Your task to perform on an android device: Toggle the flashlight Image 0: 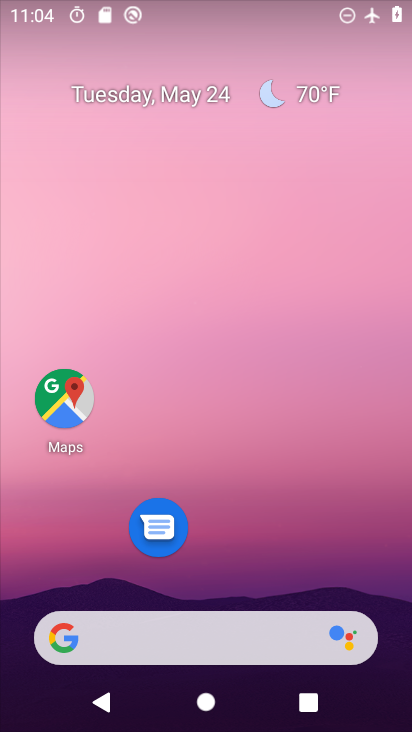
Step 0: drag from (271, 551) to (310, 82)
Your task to perform on an android device: Toggle the flashlight Image 1: 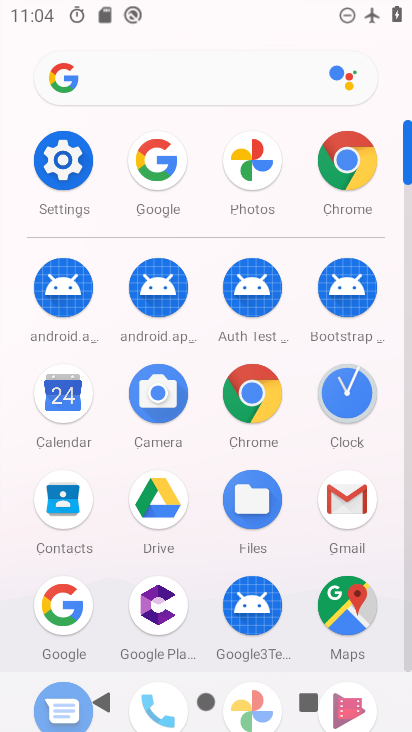
Step 1: click (65, 167)
Your task to perform on an android device: Toggle the flashlight Image 2: 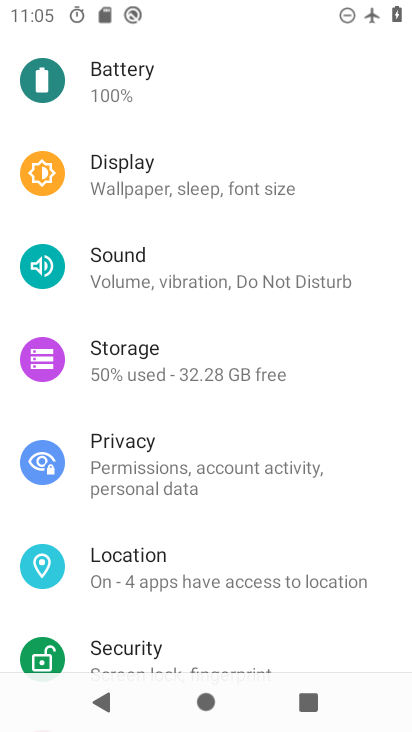
Step 2: drag from (177, 122) to (216, 518)
Your task to perform on an android device: Toggle the flashlight Image 3: 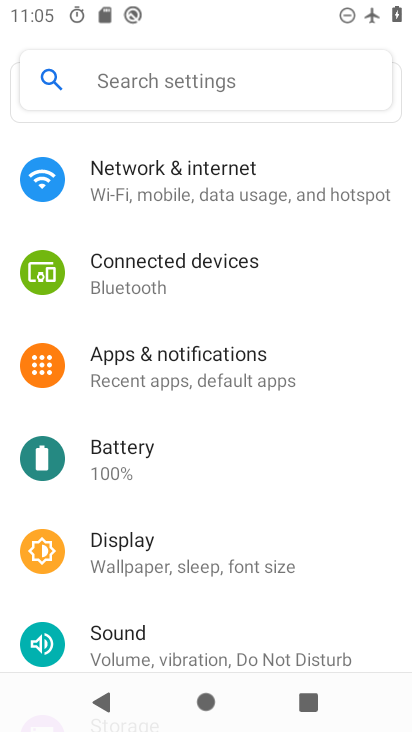
Step 3: click (188, 84)
Your task to perform on an android device: Toggle the flashlight Image 4: 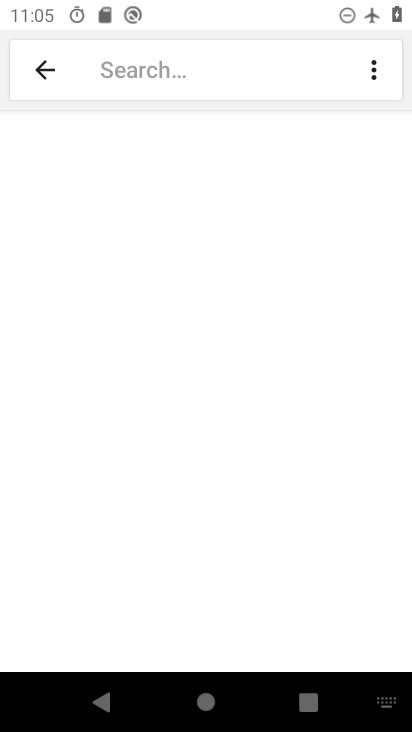
Step 4: type "flash"
Your task to perform on an android device: Toggle the flashlight Image 5: 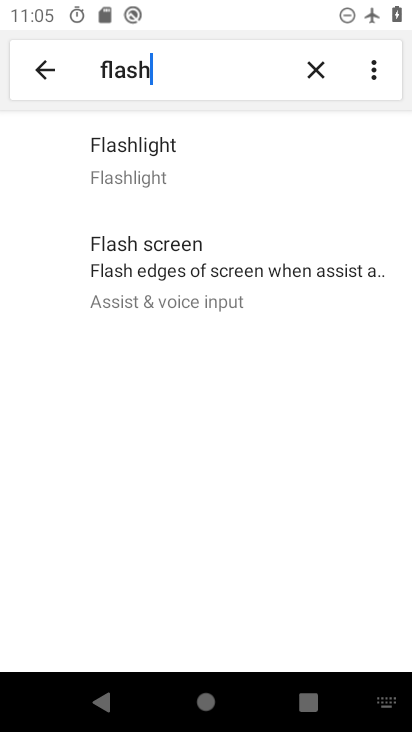
Step 5: task complete